Your task to perform on an android device: Open display settings Image 0: 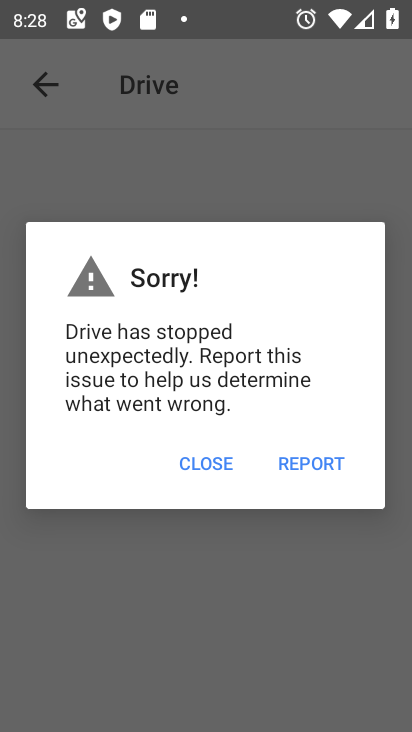
Step 0: press home button
Your task to perform on an android device: Open display settings Image 1: 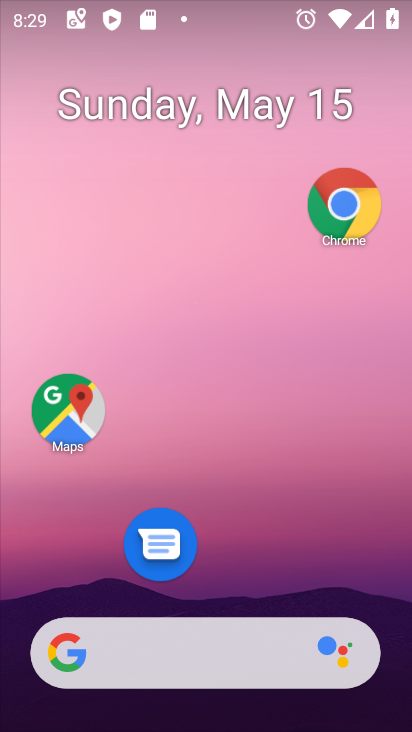
Step 1: drag from (261, 586) to (277, 83)
Your task to perform on an android device: Open display settings Image 2: 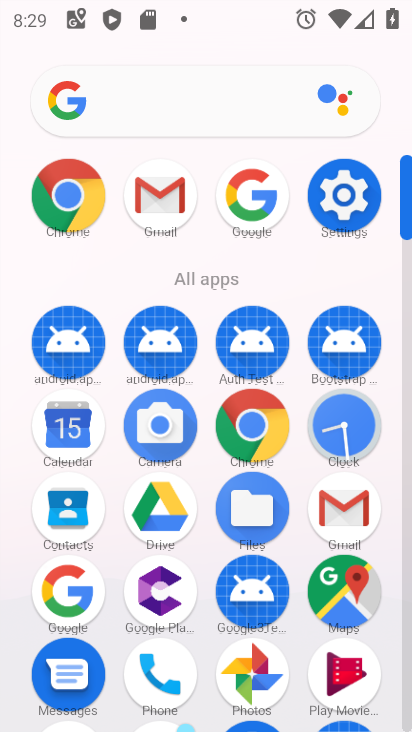
Step 2: click (343, 191)
Your task to perform on an android device: Open display settings Image 3: 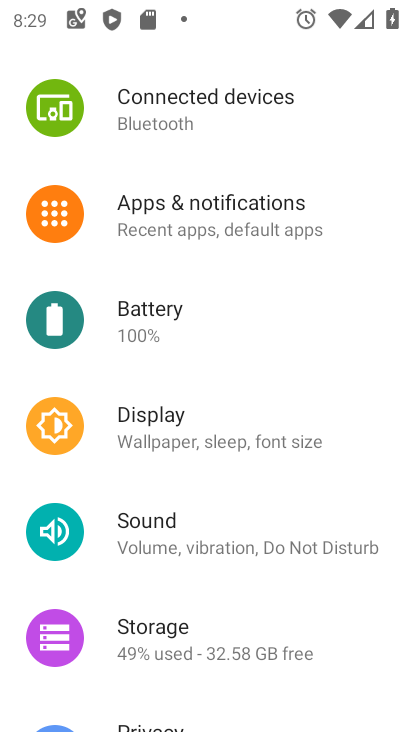
Step 3: click (160, 417)
Your task to perform on an android device: Open display settings Image 4: 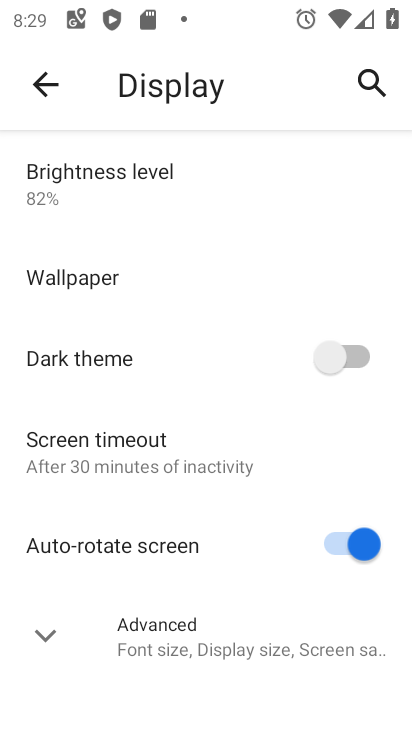
Step 4: task complete